Your task to perform on an android device: Play the last video I watched on Youtube Image 0: 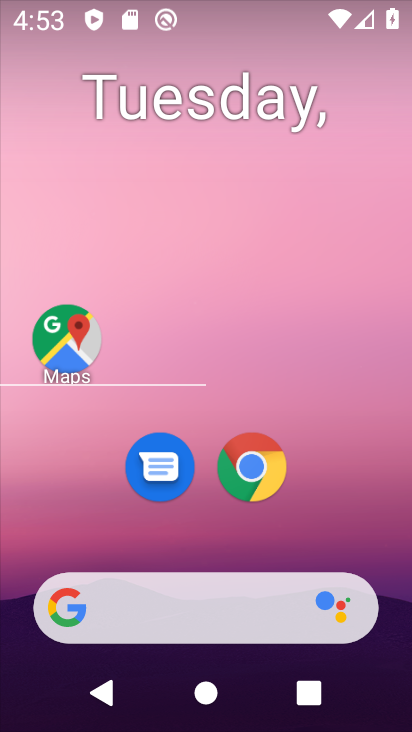
Step 0: drag from (323, 382) to (310, 258)
Your task to perform on an android device: Play the last video I watched on Youtube Image 1: 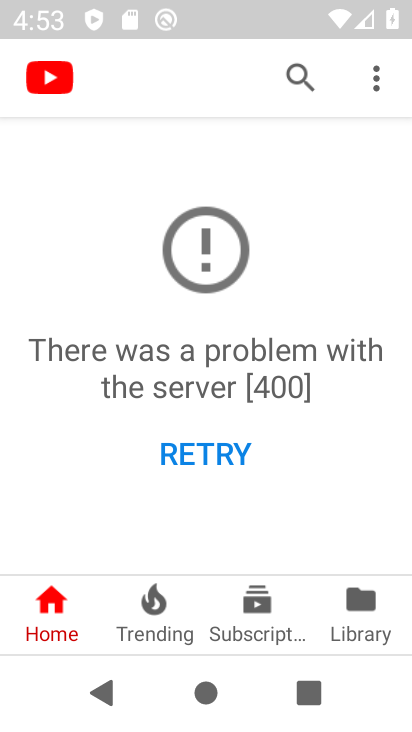
Step 1: press home button
Your task to perform on an android device: Play the last video I watched on Youtube Image 2: 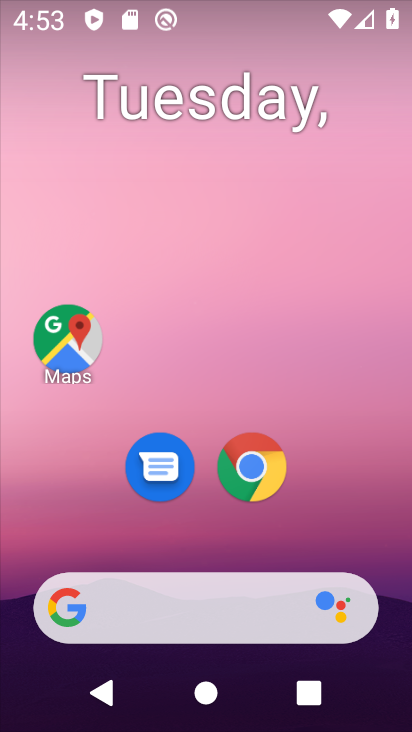
Step 2: drag from (340, 487) to (305, 120)
Your task to perform on an android device: Play the last video I watched on Youtube Image 3: 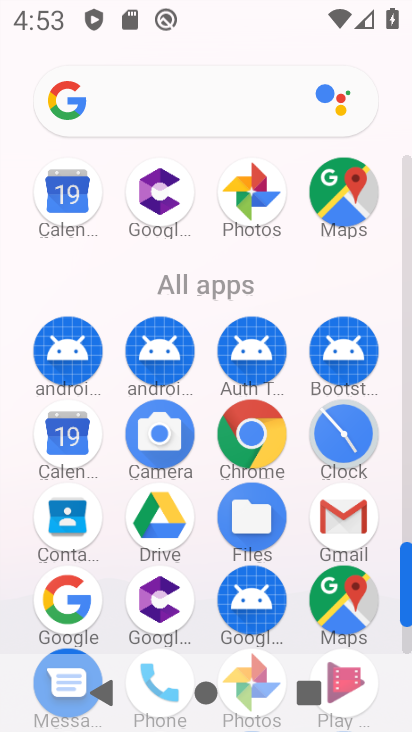
Step 3: drag from (380, 643) to (372, 168)
Your task to perform on an android device: Play the last video I watched on Youtube Image 4: 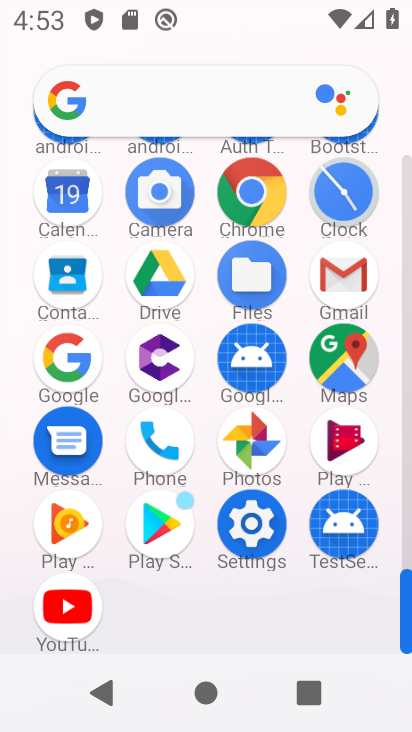
Step 4: click (78, 611)
Your task to perform on an android device: Play the last video I watched on Youtube Image 5: 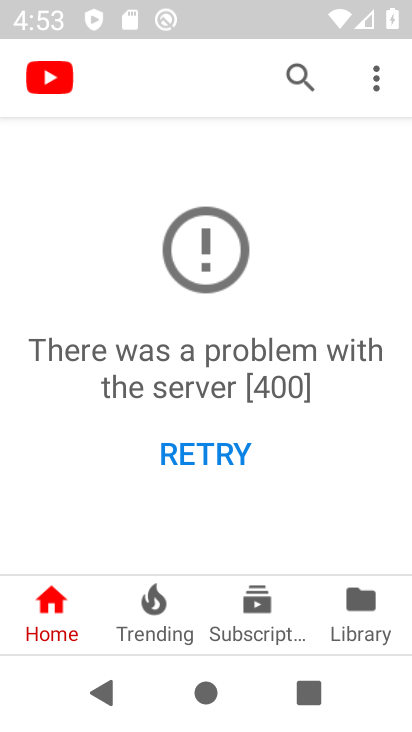
Step 5: click (348, 614)
Your task to perform on an android device: Play the last video I watched on Youtube Image 6: 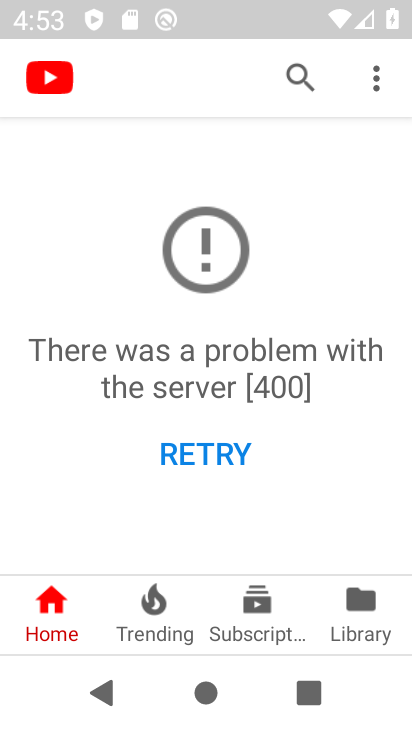
Step 6: click (359, 608)
Your task to perform on an android device: Play the last video I watched on Youtube Image 7: 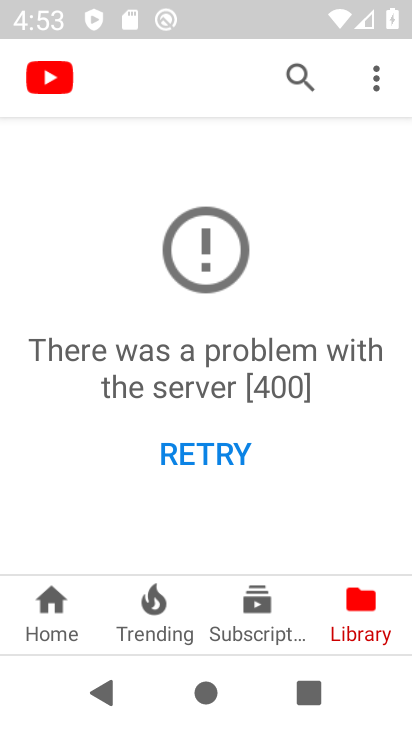
Step 7: task complete